Your task to perform on an android device: clear all cookies in the chrome app Image 0: 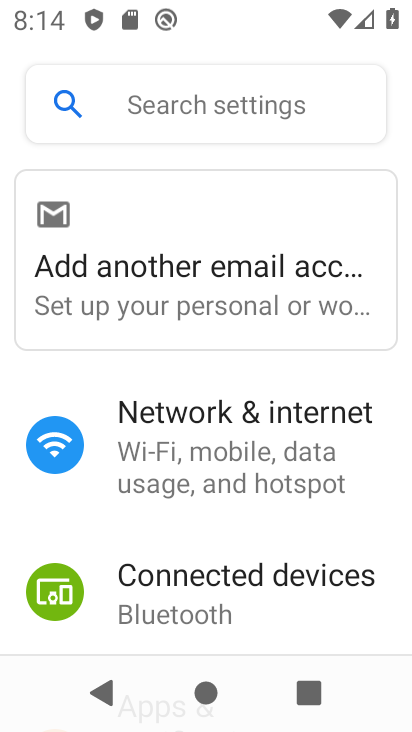
Step 0: press home button
Your task to perform on an android device: clear all cookies in the chrome app Image 1: 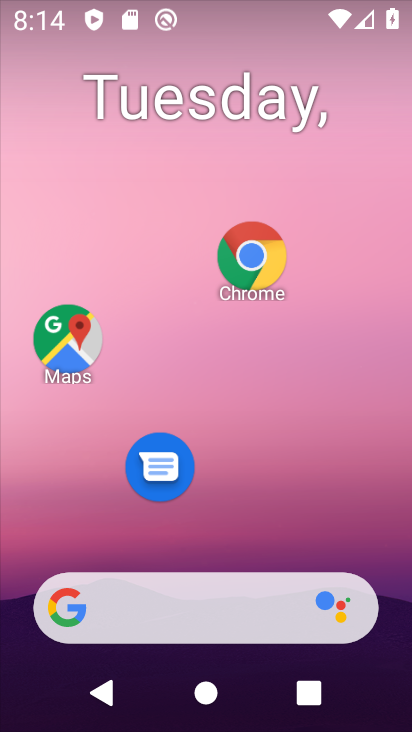
Step 1: click (249, 258)
Your task to perform on an android device: clear all cookies in the chrome app Image 2: 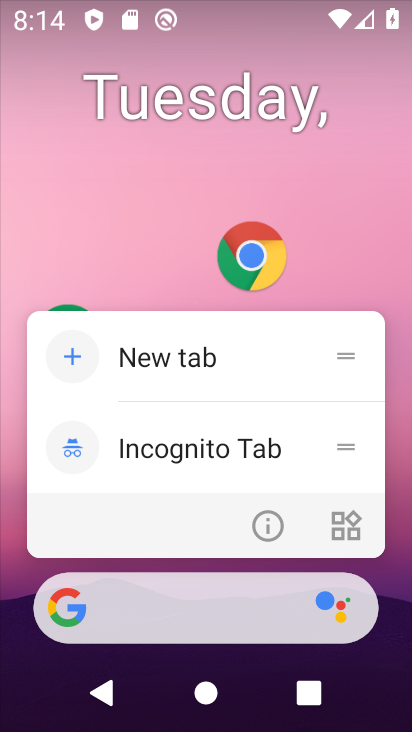
Step 2: click (249, 258)
Your task to perform on an android device: clear all cookies in the chrome app Image 3: 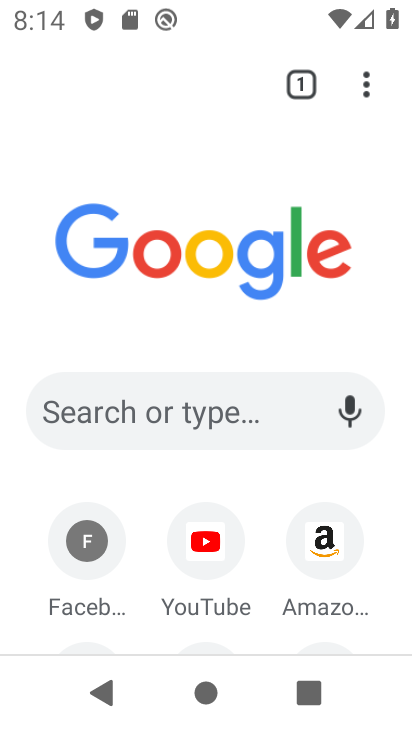
Step 3: click (365, 85)
Your task to perform on an android device: clear all cookies in the chrome app Image 4: 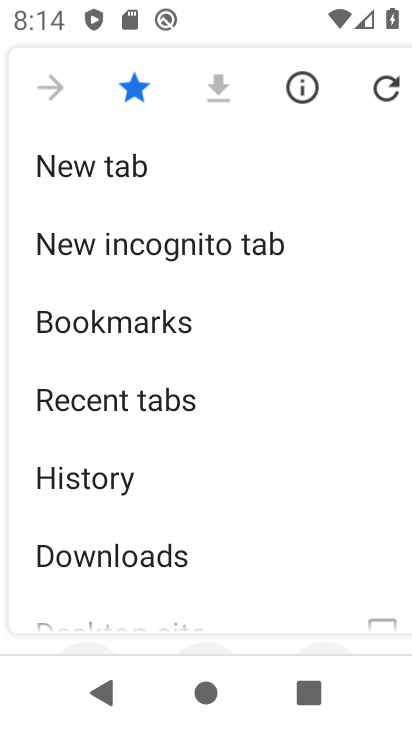
Step 4: drag from (185, 541) to (200, 179)
Your task to perform on an android device: clear all cookies in the chrome app Image 5: 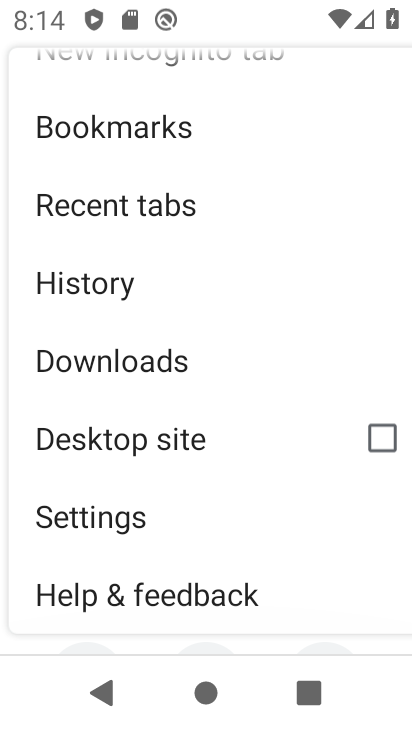
Step 5: click (123, 521)
Your task to perform on an android device: clear all cookies in the chrome app Image 6: 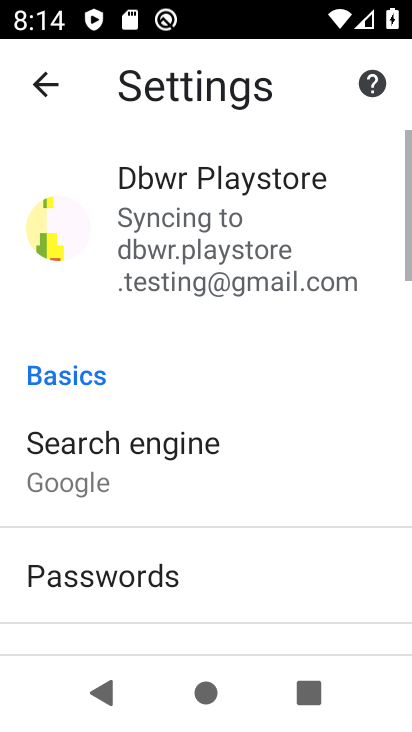
Step 6: drag from (165, 498) to (205, 125)
Your task to perform on an android device: clear all cookies in the chrome app Image 7: 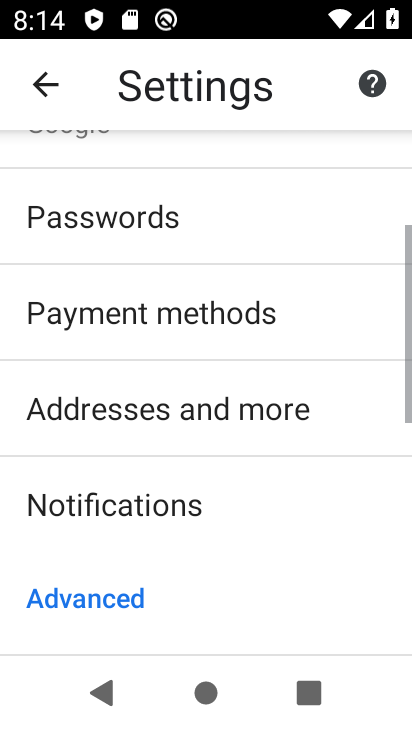
Step 7: drag from (222, 575) to (219, 305)
Your task to perform on an android device: clear all cookies in the chrome app Image 8: 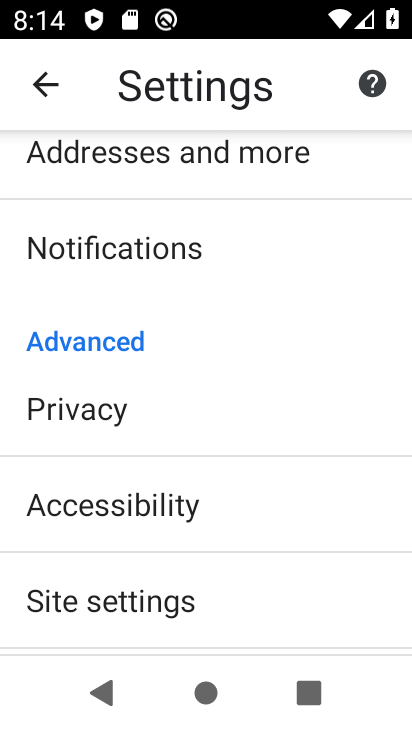
Step 8: click (128, 419)
Your task to perform on an android device: clear all cookies in the chrome app Image 9: 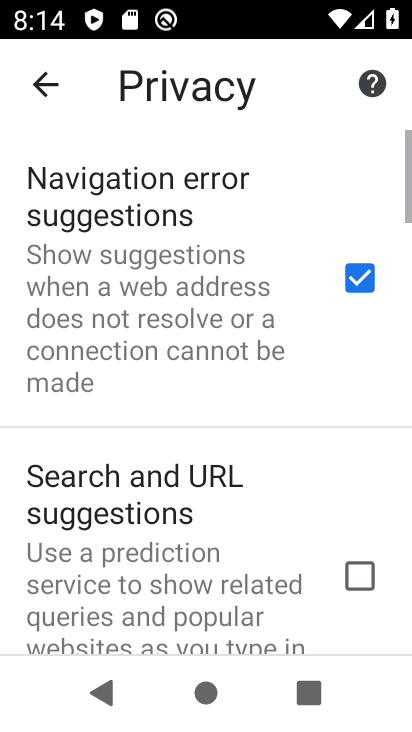
Step 9: drag from (254, 593) to (215, 119)
Your task to perform on an android device: clear all cookies in the chrome app Image 10: 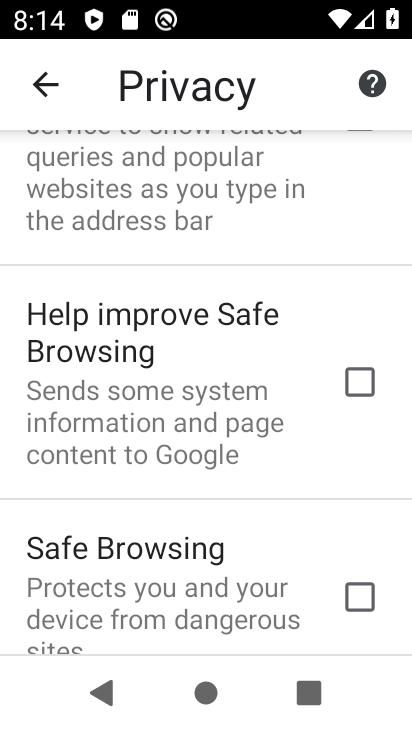
Step 10: drag from (254, 553) to (241, 135)
Your task to perform on an android device: clear all cookies in the chrome app Image 11: 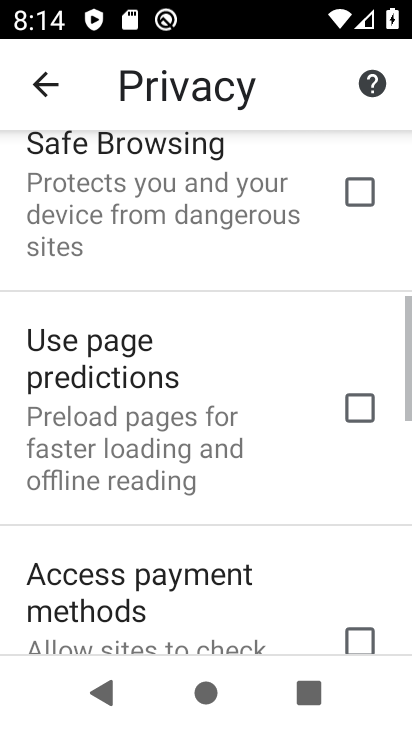
Step 11: drag from (241, 620) to (234, 154)
Your task to perform on an android device: clear all cookies in the chrome app Image 12: 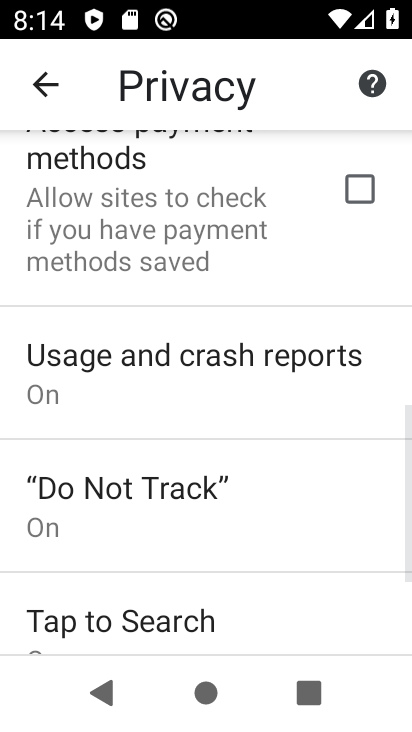
Step 12: drag from (185, 520) to (203, 118)
Your task to perform on an android device: clear all cookies in the chrome app Image 13: 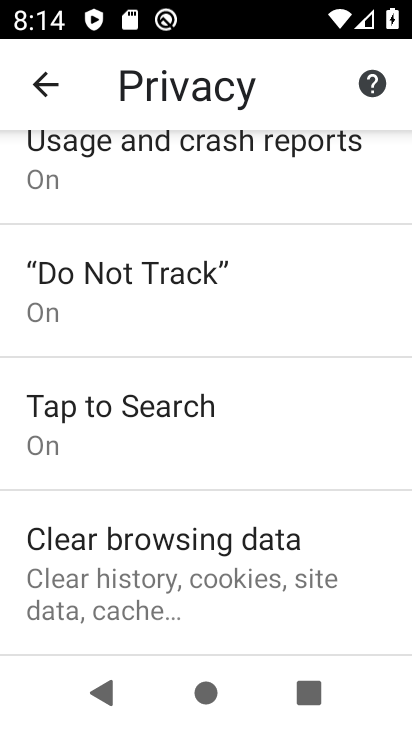
Step 13: click (195, 593)
Your task to perform on an android device: clear all cookies in the chrome app Image 14: 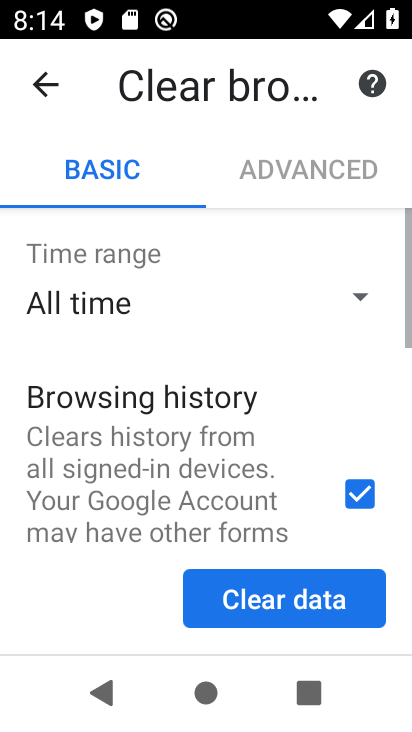
Step 14: drag from (314, 461) to (316, 277)
Your task to perform on an android device: clear all cookies in the chrome app Image 15: 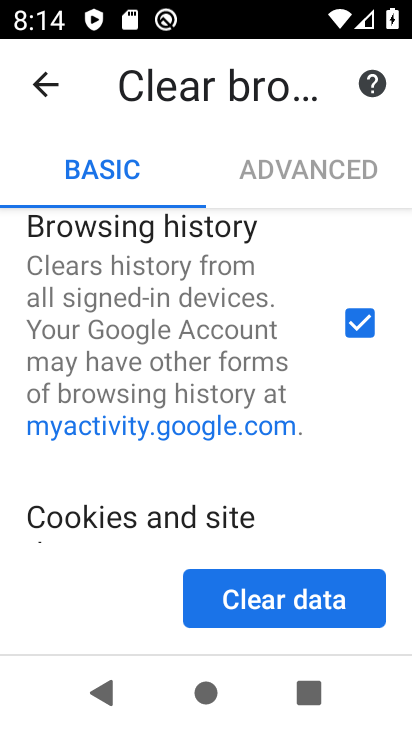
Step 15: click (371, 320)
Your task to perform on an android device: clear all cookies in the chrome app Image 16: 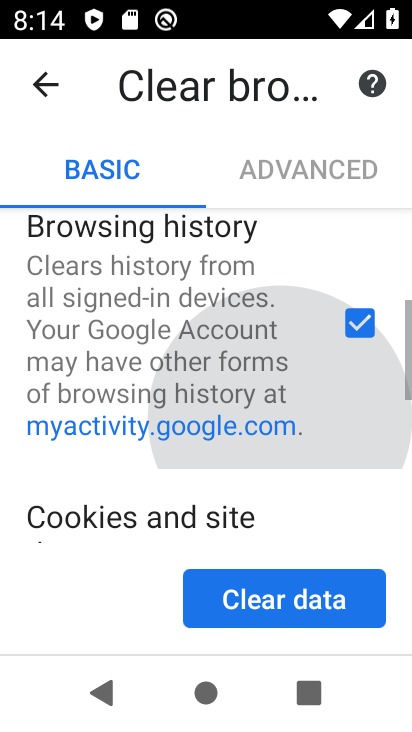
Step 16: drag from (345, 432) to (314, 253)
Your task to perform on an android device: clear all cookies in the chrome app Image 17: 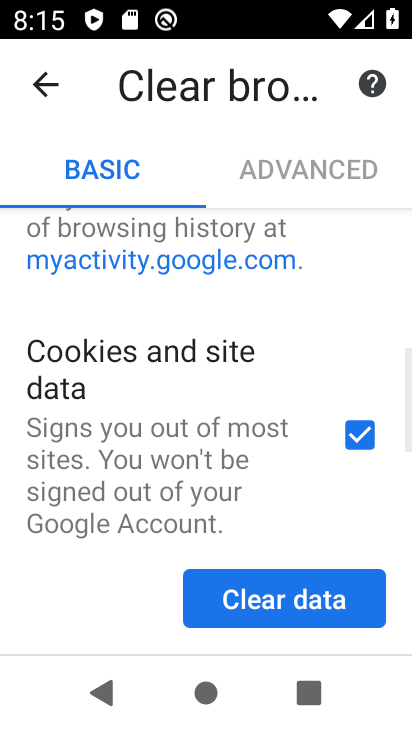
Step 17: drag from (239, 488) to (252, 232)
Your task to perform on an android device: clear all cookies in the chrome app Image 18: 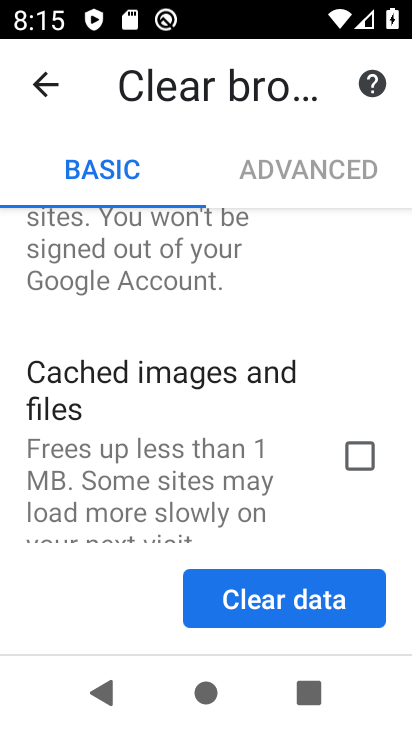
Step 18: drag from (261, 491) to (260, 281)
Your task to perform on an android device: clear all cookies in the chrome app Image 19: 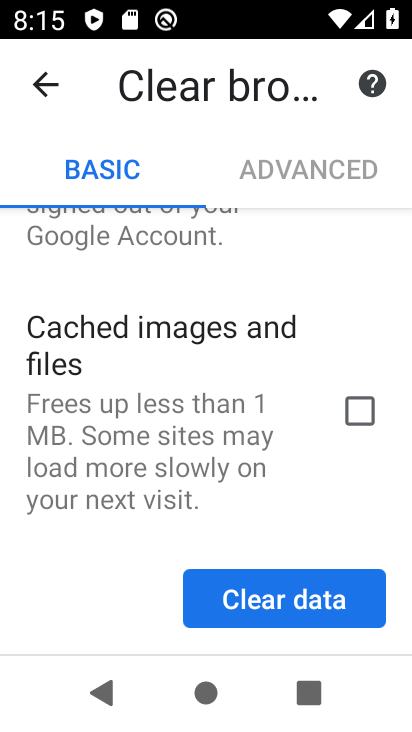
Step 19: click (278, 599)
Your task to perform on an android device: clear all cookies in the chrome app Image 20: 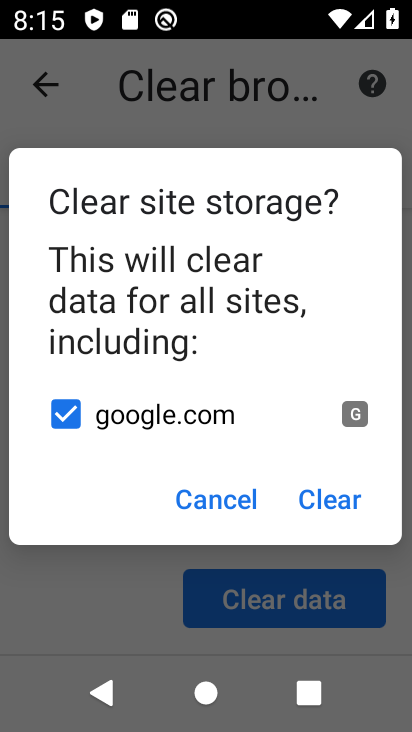
Step 20: click (342, 489)
Your task to perform on an android device: clear all cookies in the chrome app Image 21: 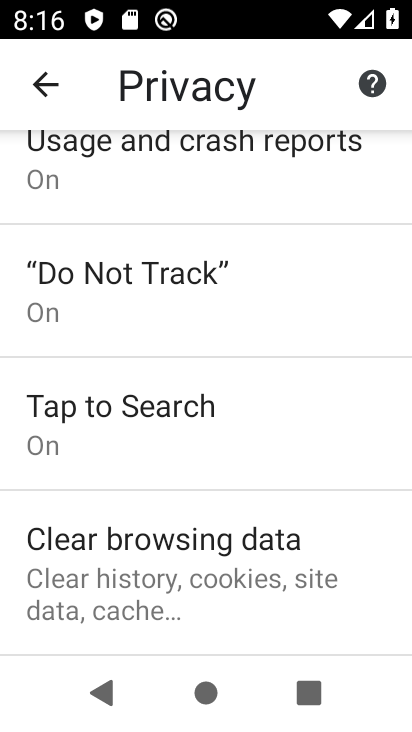
Step 21: task complete